Your task to perform on an android device: Go to location settings Image 0: 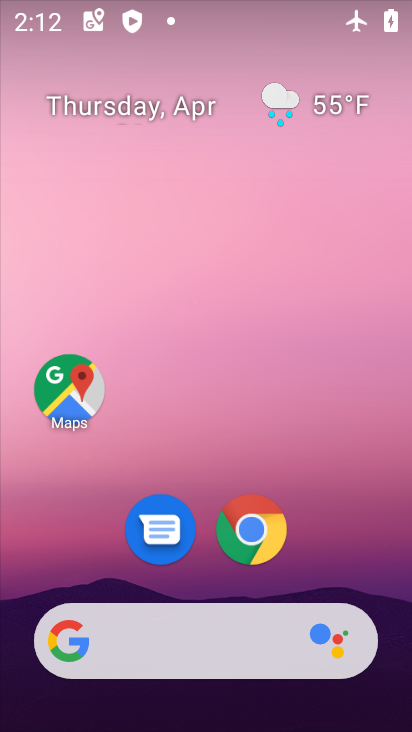
Step 0: drag from (197, 477) to (206, 105)
Your task to perform on an android device: Go to location settings Image 1: 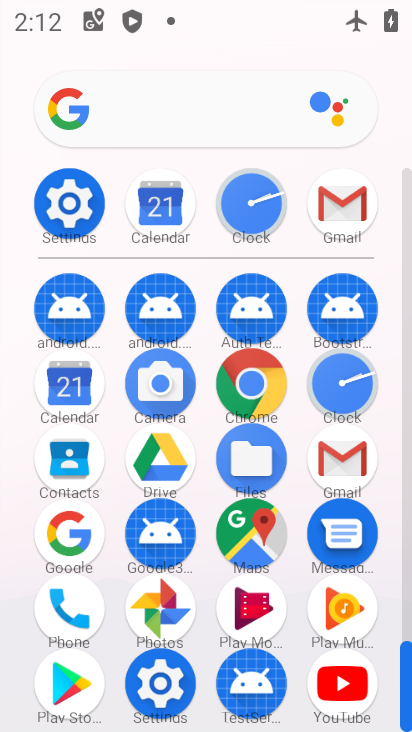
Step 1: click (64, 205)
Your task to perform on an android device: Go to location settings Image 2: 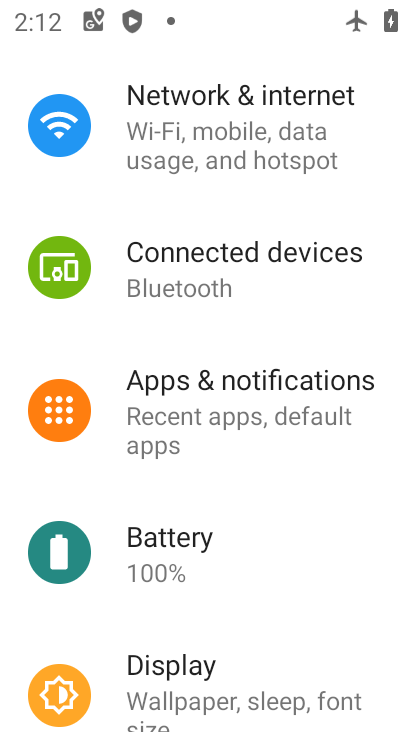
Step 2: drag from (215, 551) to (145, 210)
Your task to perform on an android device: Go to location settings Image 3: 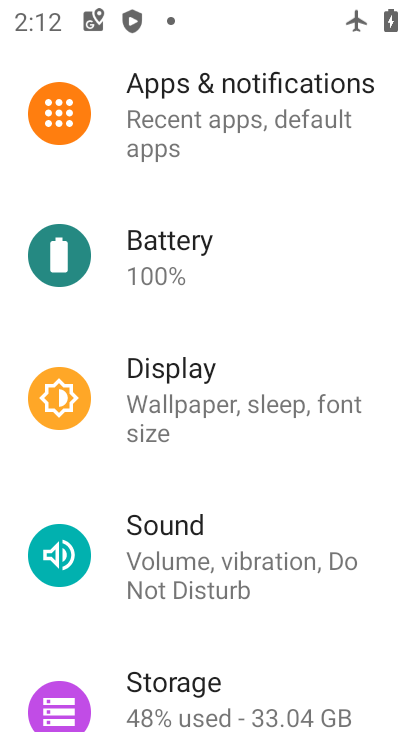
Step 3: drag from (246, 585) to (193, 291)
Your task to perform on an android device: Go to location settings Image 4: 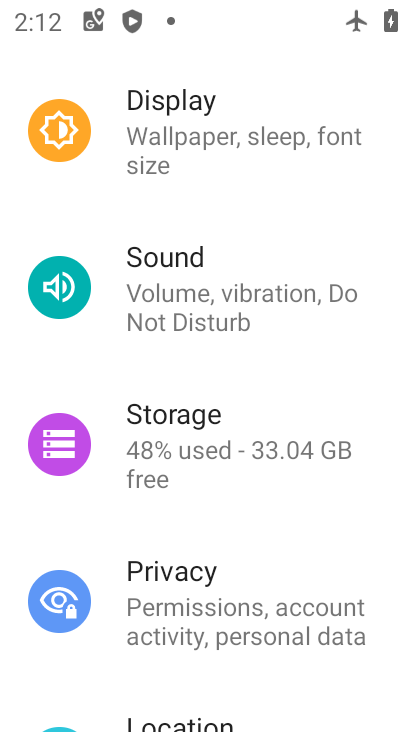
Step 4: drag from (217, 554) to (143, 275)
Your task to perform on an android device: Go to location settings Image 5: 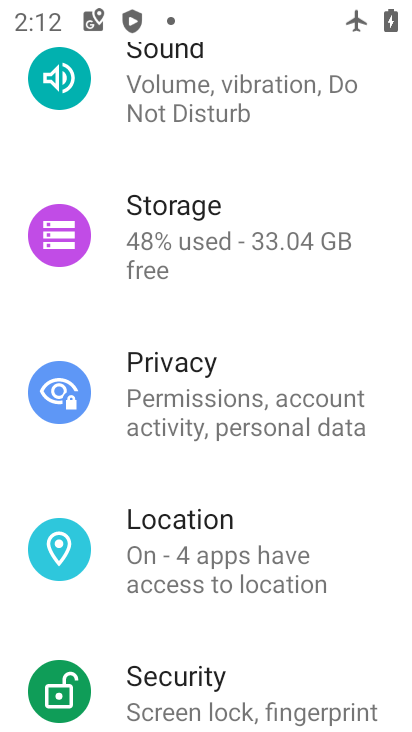
Step 5: click (235, 546)
Your task to perform on an android device: Go to location settings Image 6: 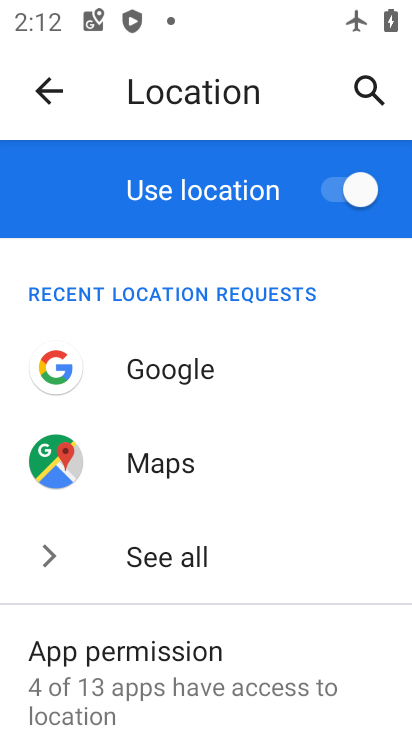
Step 6: task complete